Your task to perform on an android device: When is my next meeting? Image 0: 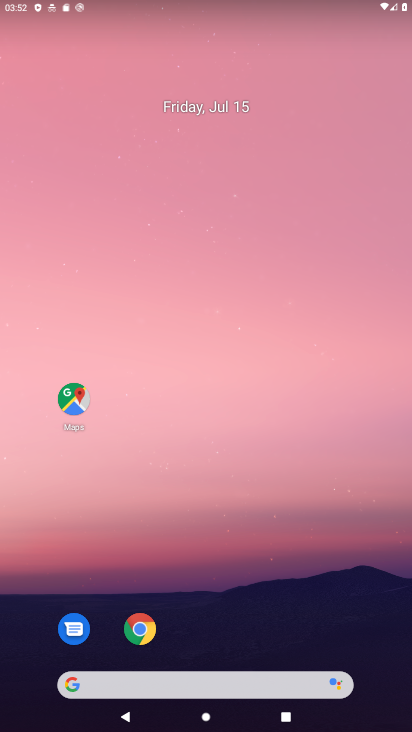
Step 0: drag from (295, 610) to (300, 42)
Your task to perform on an android device: When is my next meeting? Image 1: 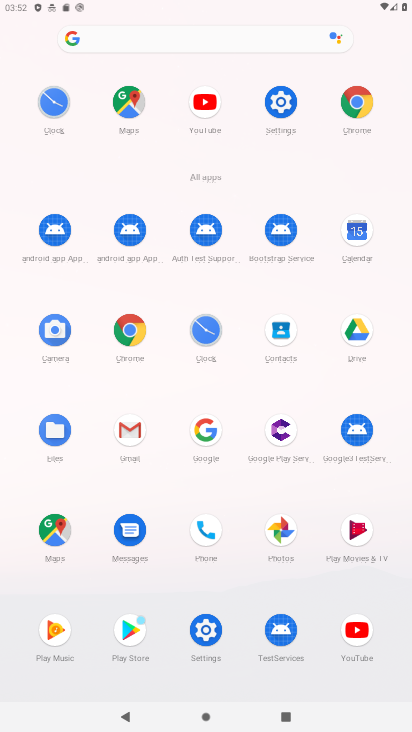
Step 1: click (364, 217)
Your task to perform on an android device: When is my next meeting? Image 2: 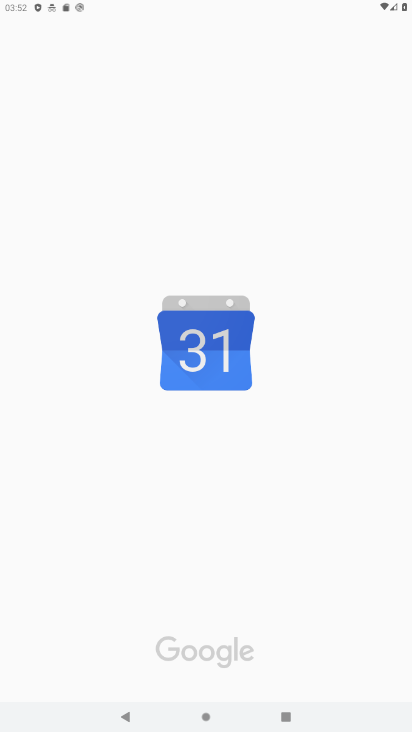
Step 2: click (374, 666)
Your task to perform on an android device: When is my next meeting? Image 3: 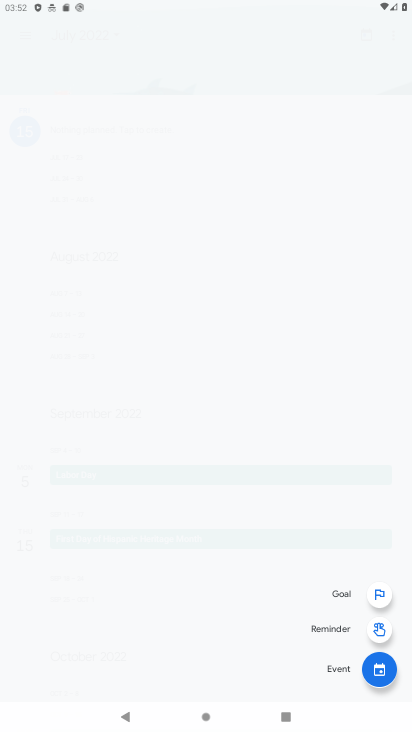
Step 3: press back button
Your task to perform on an android device: When is my next meeting? Image 4: 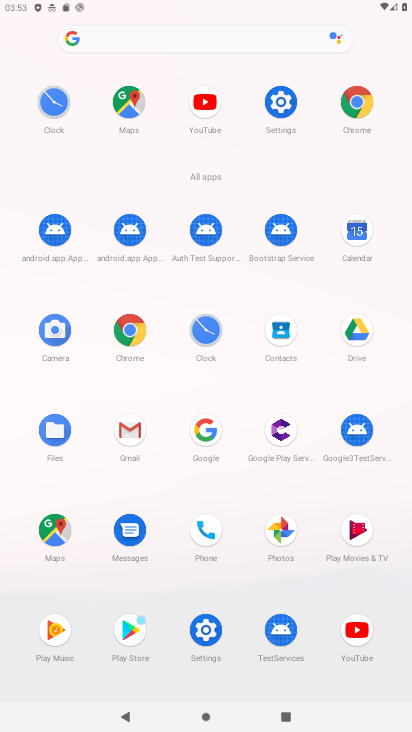
Step 4: click (359, 229)
Your task to perform on an android device: When is my next meeting? Image 5: 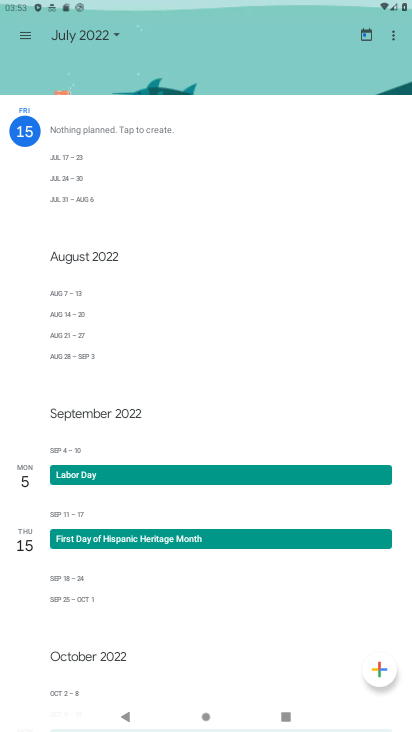
Step 5: task complete